Your task to perform on an android device: Open the map Image 0: 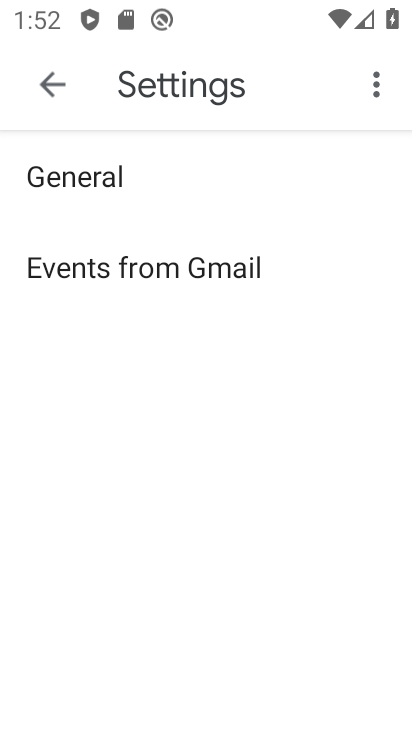
Step 0: press home button
Your task to perform on an android device: Open the map Image 1: 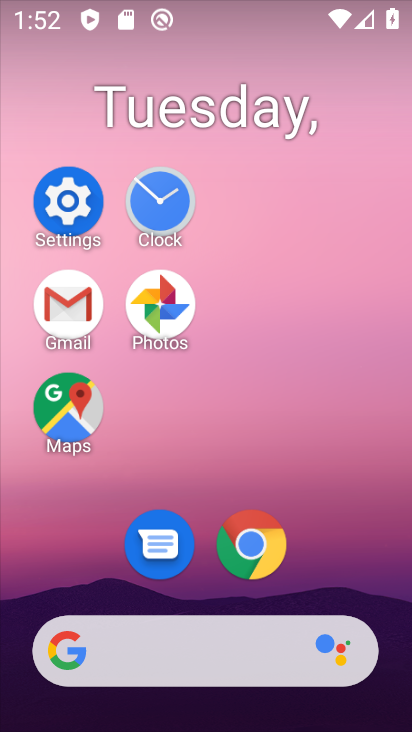
Step 1: click (65, 410)
Your task to perform on an android device: Open the map Image 2: 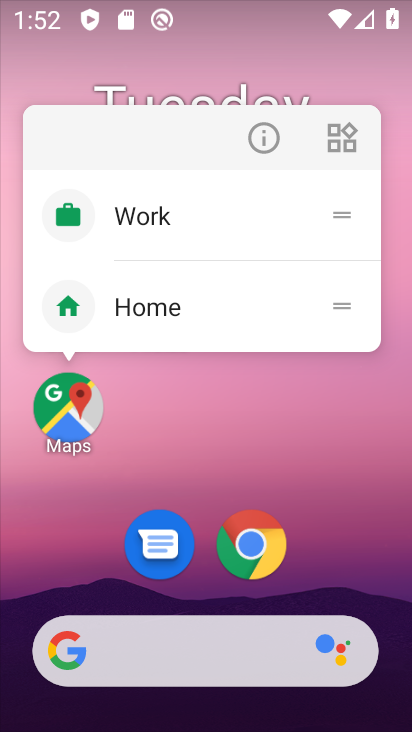
Step 2: click (82, 396)
Your task to perform on an android device: Open the map Image 3: 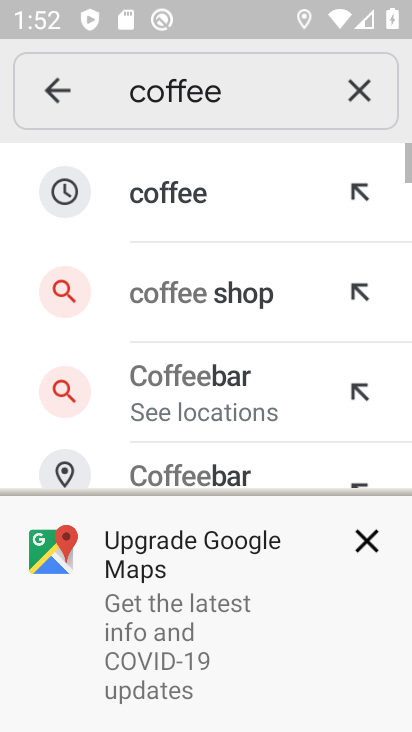
Step 3: task complete